Your task to perform on an android device: Open calendar and show me the first week of next month Image 0: 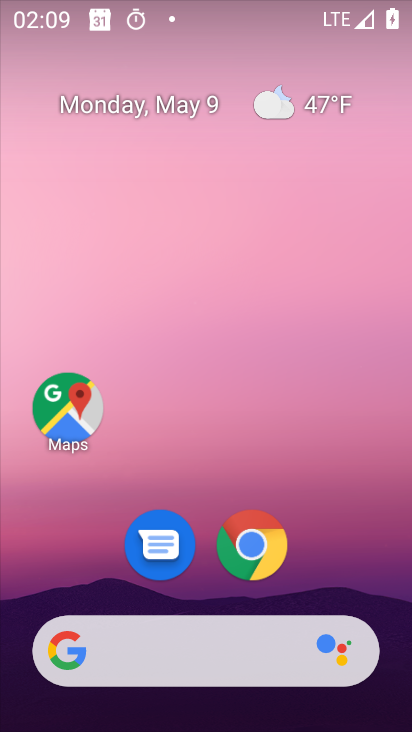
Step 0: drag from (368, 603) to (314, 36)
Your task to perform on an android device: Open calendar and show me the first week of next month Image 1: 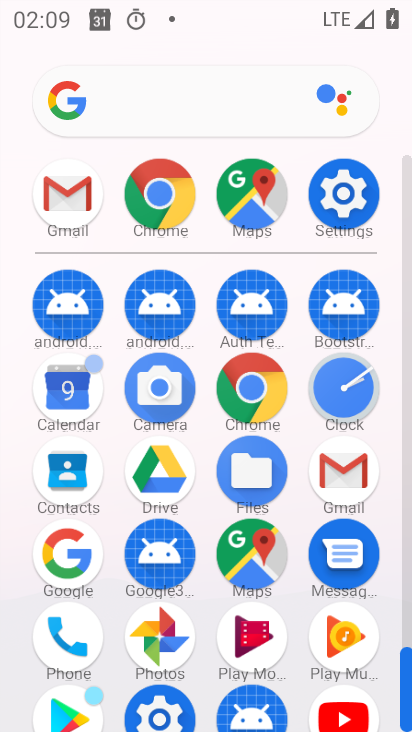
Step 1: click (62, 391)
Your task to perform on an android device: Open calendar and show me the first week of next month Image 2: 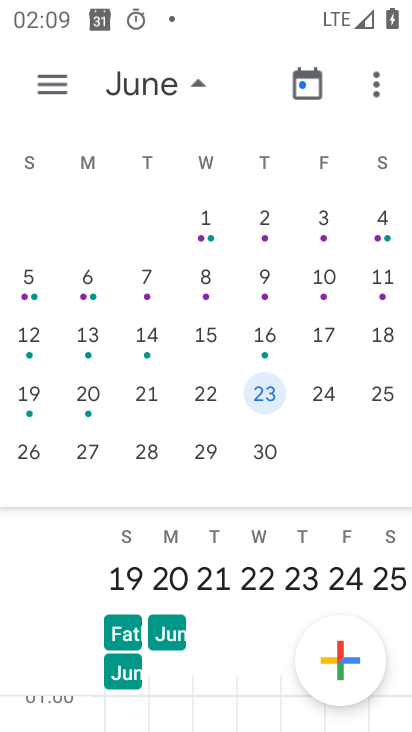
Step 2: drag from (363, 404) to (390, 426)
Your task to perform on an android device: Open calendar and show me the first week of next month Image 3: 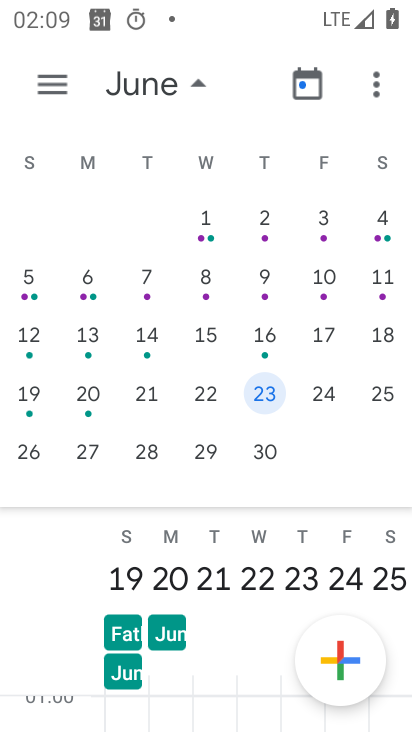
Step 3: click (272, 222)
Your task to perform on an android device: Open calendar and show me the first week of next month Image 4: 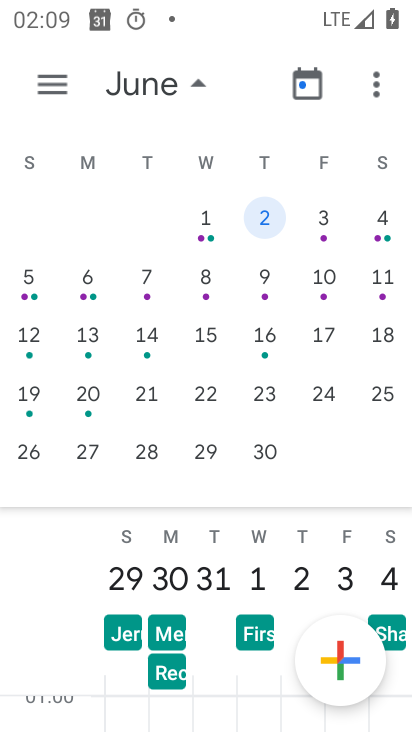
Step 4: task complete